Your task to perform on an android device: turn off location history Image 0: 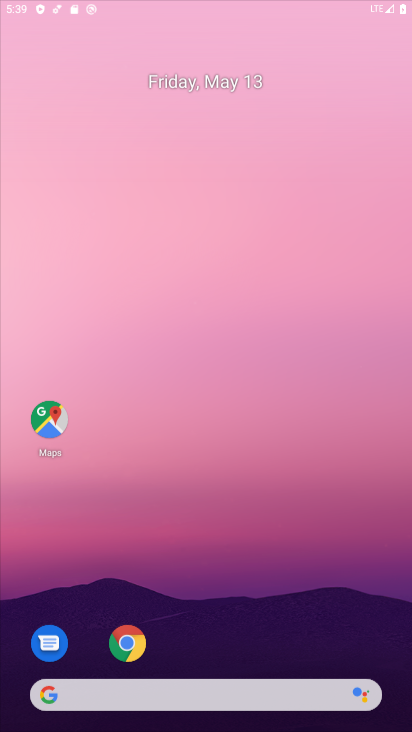
Step 0: click (136, 640)
Your task to perform on an android device: turn off location history Image 1: 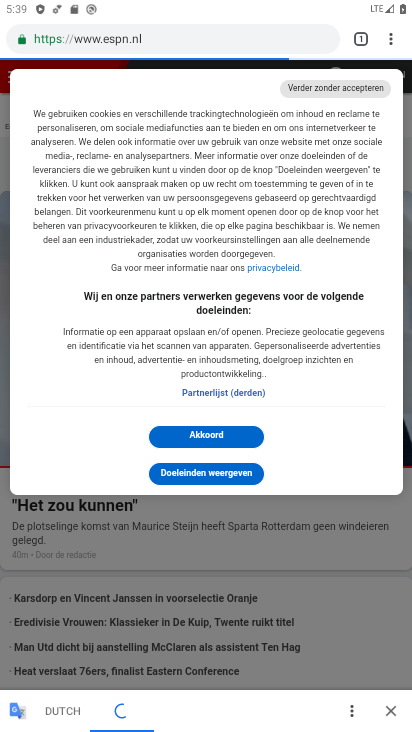
Step 1: press home button
Your task to perform on an android device: turn off location history Image 2: 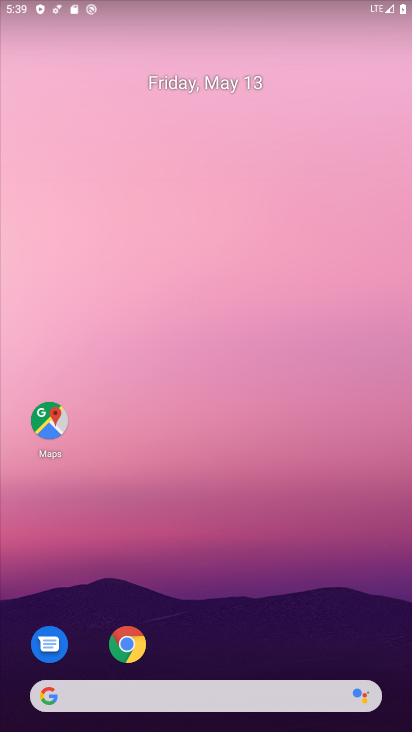
Step 2: drag from (232, 630) to (297, 20)
Your task to perform on an android device: turn off location history Image 3: 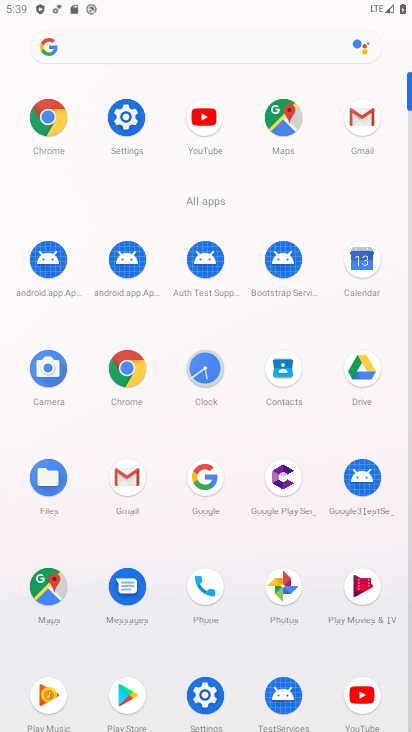
Step 3: click (194, 693)
Your task to perform on an android device: turn off location history Image 4: 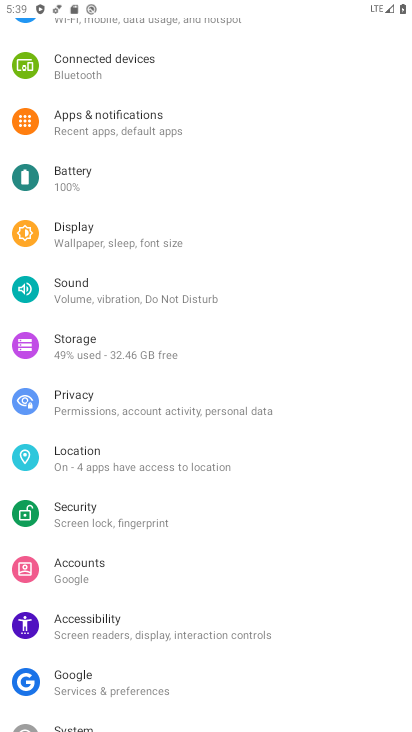
Step 4: click (121, 463)
Your task to perform on an android device: turn off location history Image 5: 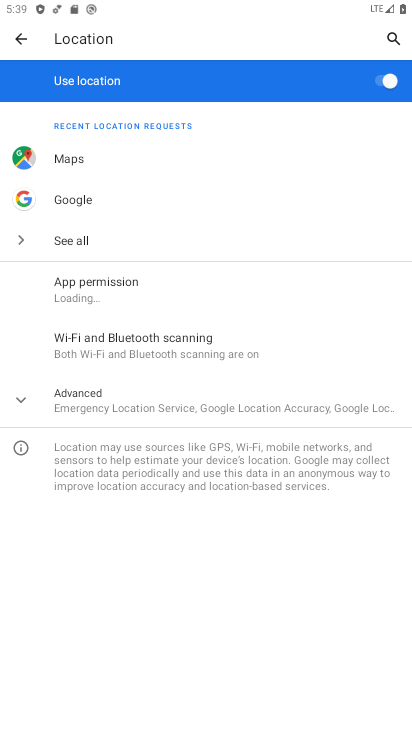
Step 5: click (209, 407)
Your task to perform on an android device: turn off location history Image 6: 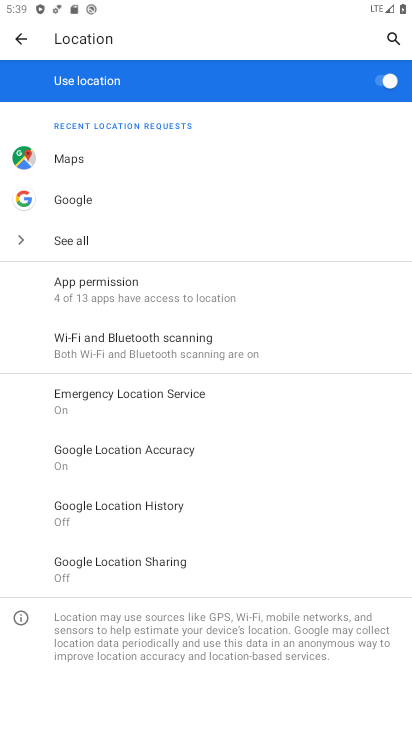
Step 6: click (153, 514)
Your task to perform on an android device: turn off location history Image 7: 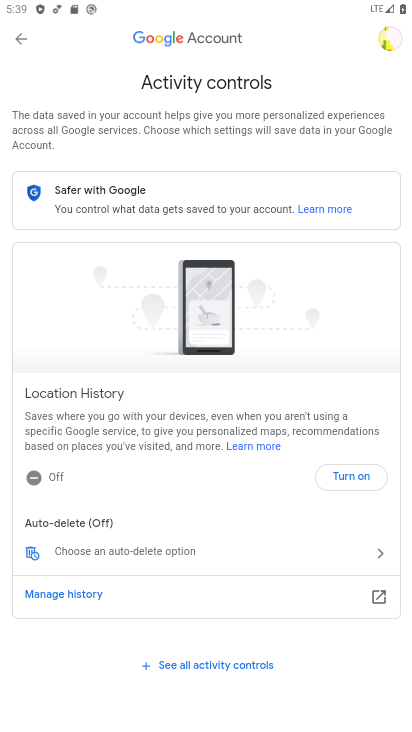
Step 7: task complete